Your task to perform on an android device: Search for pizza restaurants on Maps Image 0: 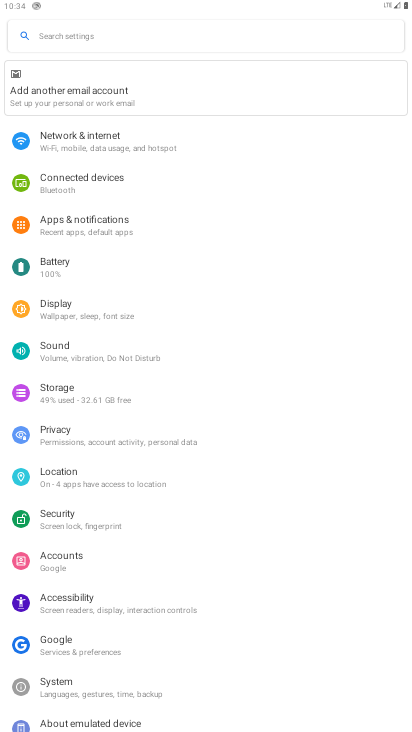
Step 0: press home button
Your task to perform on an android device: Search for pizza restaurants on Maps Image 1: 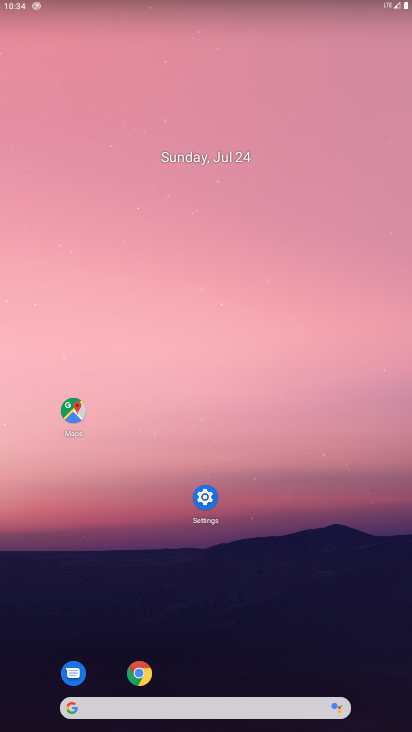
Step 1: click (71, 407)
Your task to perform on an android device: Search for pizza restaurants on Maps Image 2: 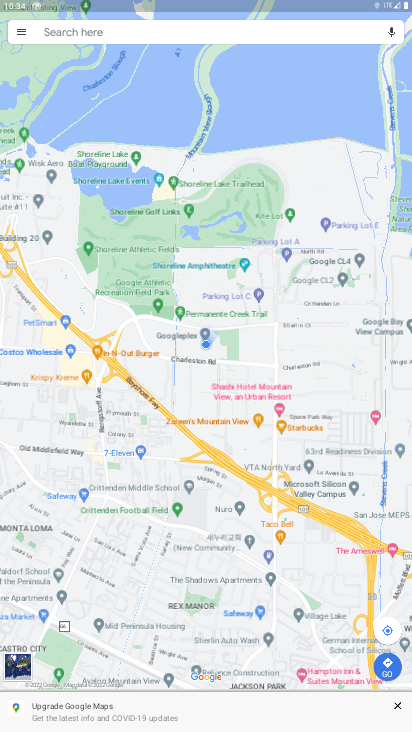
Step 2: click (225, 27)
Your task to perform on an android device: Search for pizza restaurants on Maps Image 3: 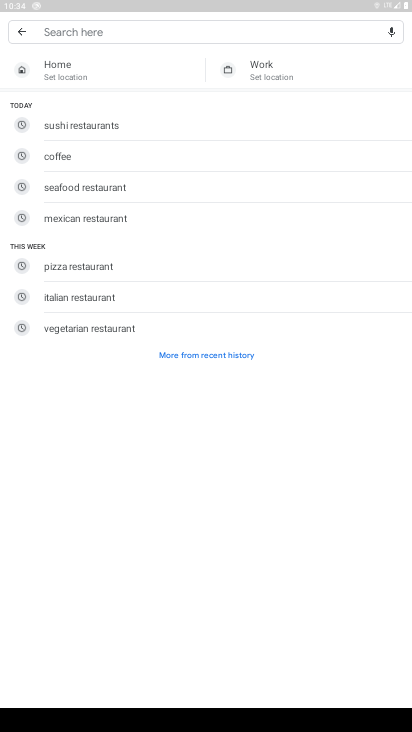
Step 3: type "pizza restaurants"
Your task to perform on an android device: Search for pizza restaurants on Maps Image 4: 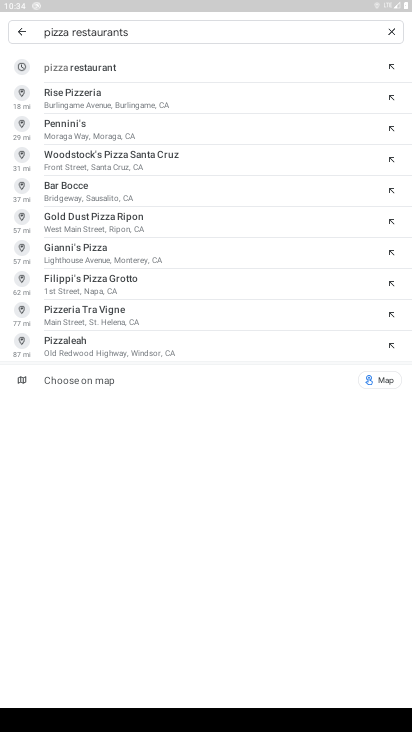
Step 4: press enter
Your task to perform on an android device: Search for pizza restaurants on Maps Image 5: 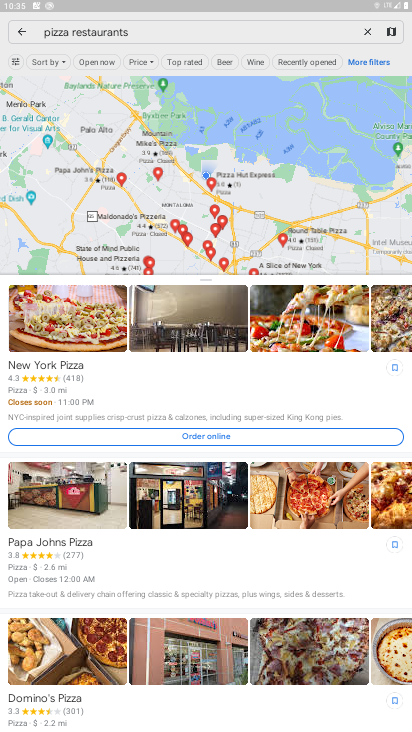
Step 5: task complete